Your task to perform on an android device: What's the weather going to be tomorrow? Image 0: 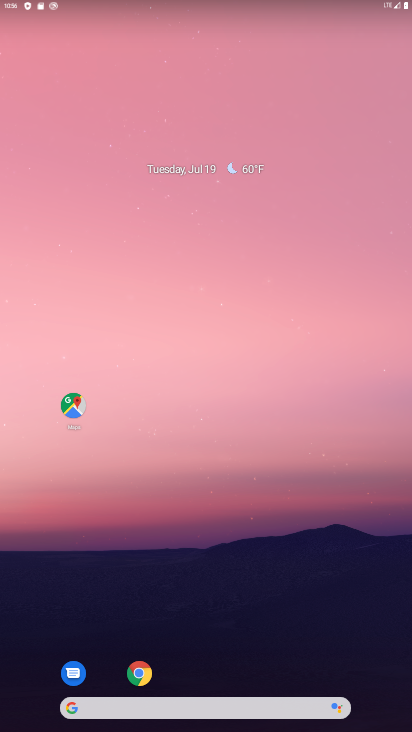
Step 0: drag from (190, 679) to (169, 105)
Your task to perform on an android device: What's the weather going to be tomorrow? Image 1: 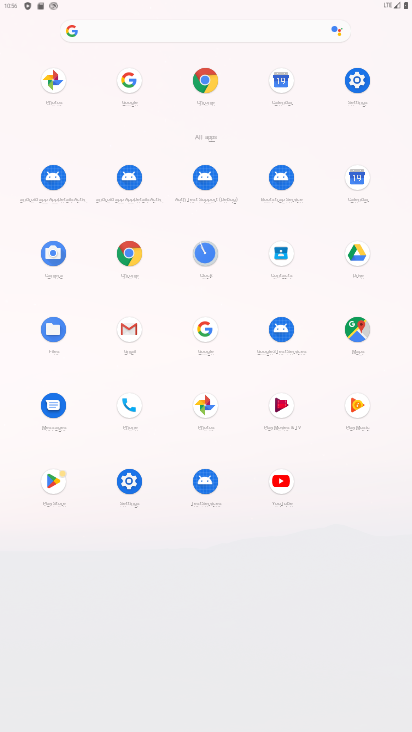
Step 1: click (204, 334)
Your task to perform on an android device: What's the weather going to be tomorrow? Image 2: 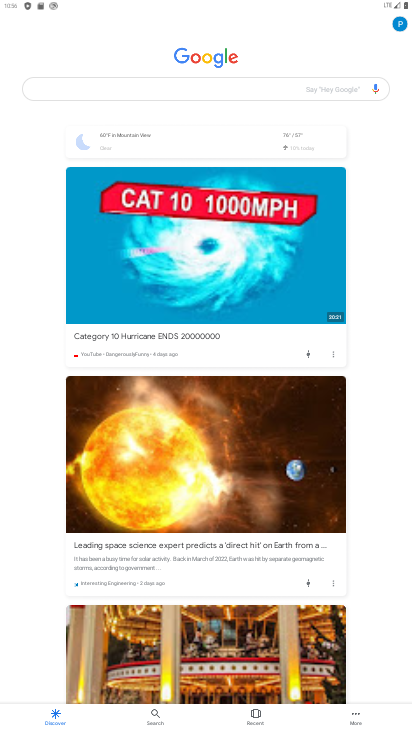
Step 2: click (119, 93)
Your task to perform on an android device: What's the weather going to be tomorrow? Image 3: 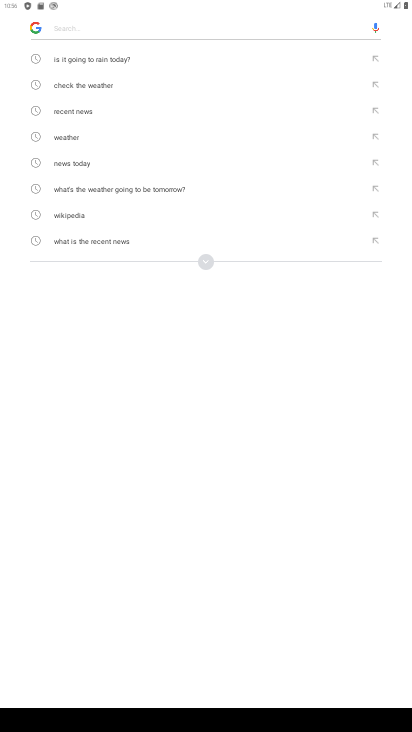
Step 3: type "whats the weather going to be tomorrow"
Your task to perform on an android device: What's the weather going to be tomorrow? Image 4: 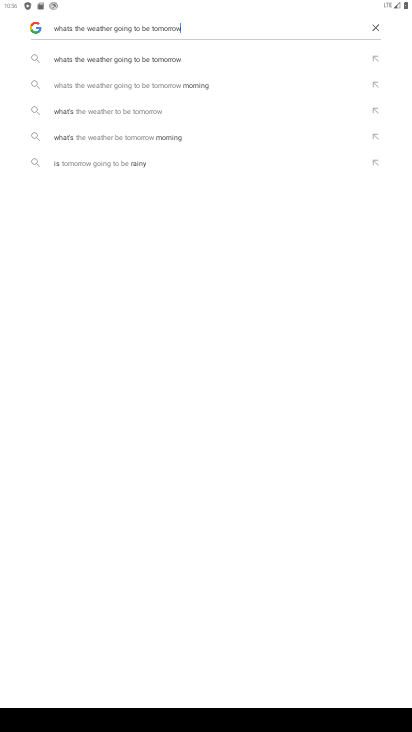
Step 4: click (120, 68)
Your task to perform on an android device: What's the weather going to be tomorrow? Image 5: 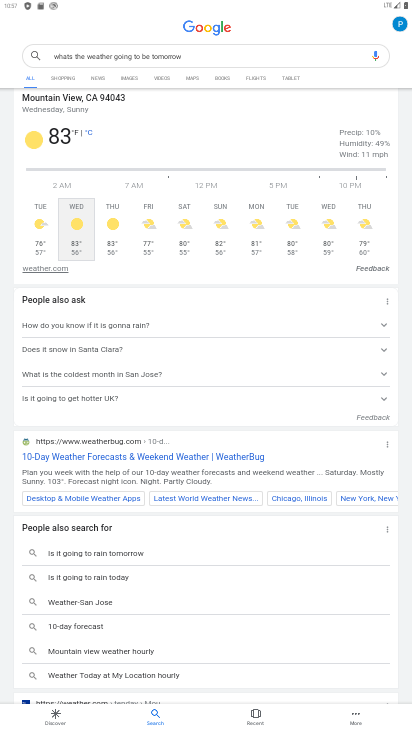
Step 5: task complete